Your task to perform on an android device: Show me the alarms in the clock app Image 0: 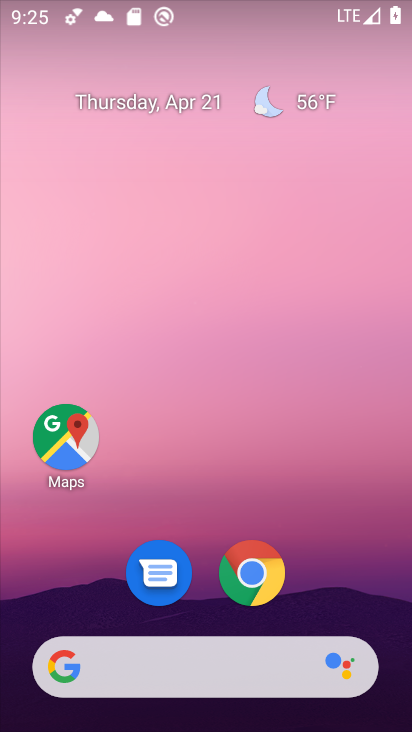
Step 0: drag from (360, 552) to (310, 149)
Your task to perform on an android device: Show me the alarms in the clock app Image 1: 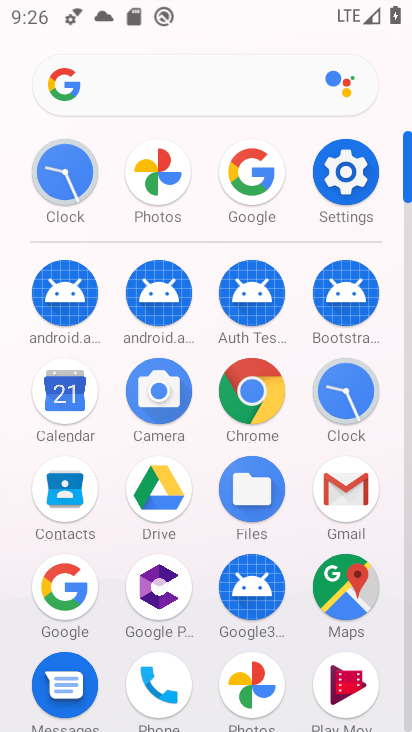
Step 1: click (344, 400)
Your task to perform on an android device: Show me the alarms in the clock app Image 2: 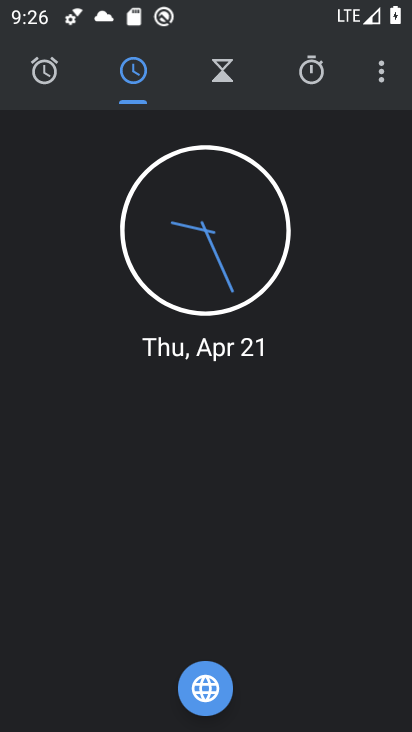
Step 2: click (47, 72)
Your task to perform on an android device: Show me the alarms in the clock app Image 3: 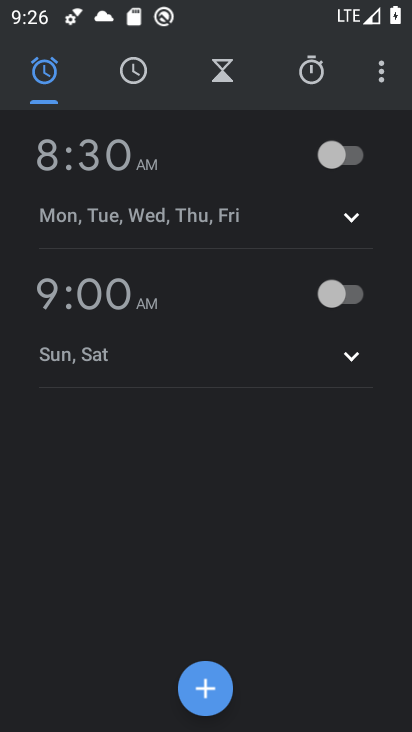
Step 3: task complete